Your task to perform on an android device: Empty the shopping cart on walmart.com. Image 0: 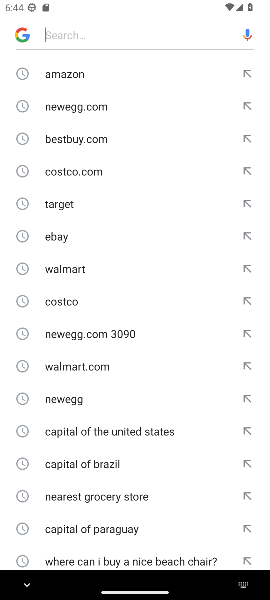
Step 0: click (67, 267)
Your task to perform on an android device: Empty the shopping cart on walmart.com. Image 1: 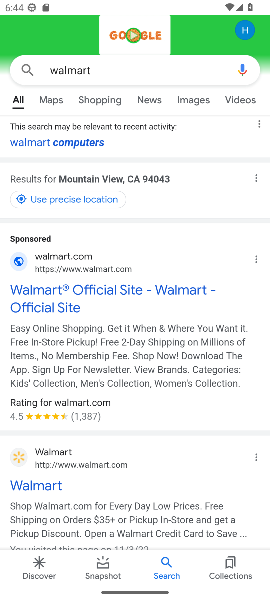
Step 1: click (46, 455)
Your task to perform on an android device: Empty the shopping cart on walmart.com. Image 2: 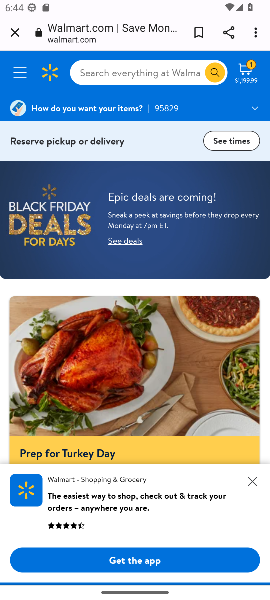
Step 2: click (244, 71)
Your task to perform on an android device: Empty the shopping cart on walmart.com. Image 3: 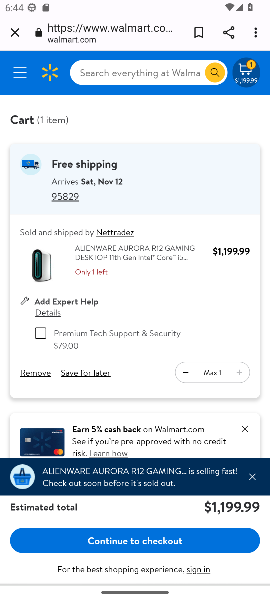
Step 3: click (30, 373)
Your task to perform on an android device: Empty the shopping cart on walmart.com. Image 4: 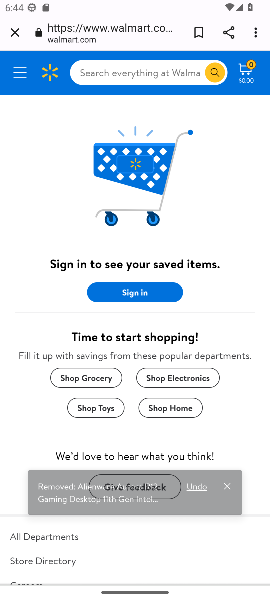
Step 4: task complete